Your task to perform on an android device: toggle improve location accuracy Image 0: 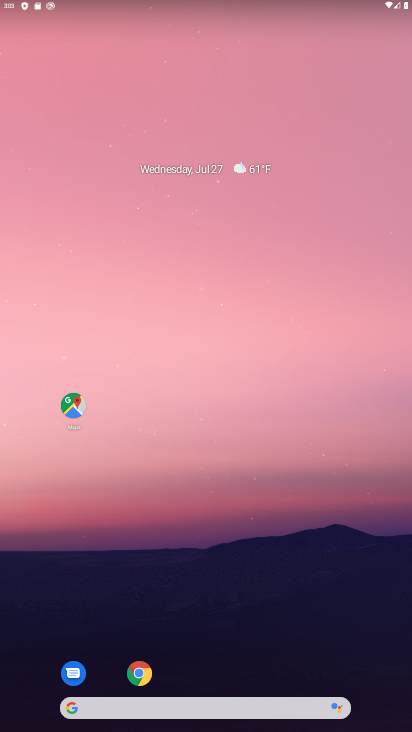
Step 0: drag from (318, 651) to (256, 208)
Your task to perform on an android device: toggle improve location accuracy Image 1: 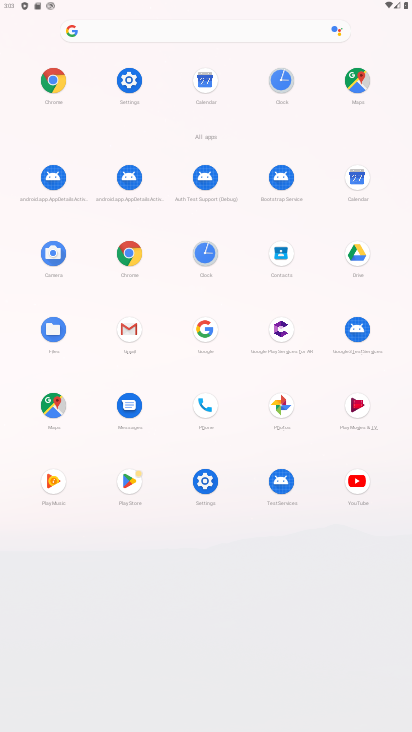
Step 1: click (211, 485)
Your task to perform on an android device: toggle improve location accuracy Image 2: 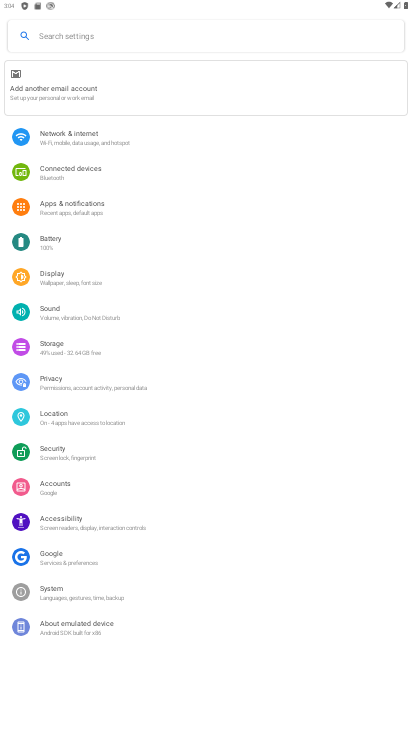
Step 2: click (62, 422)
Your task to perform on an android device: toggle improve location accuracy Image 3: 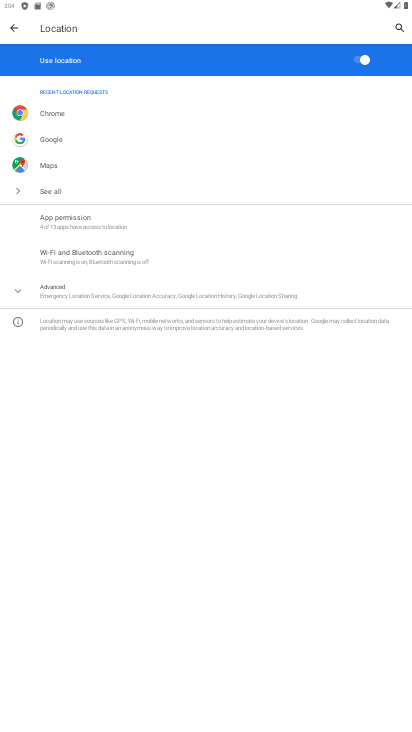
Step 3: click (76, 291)
Your task to perform on an android device: toggle improve location accuracy Image 4: 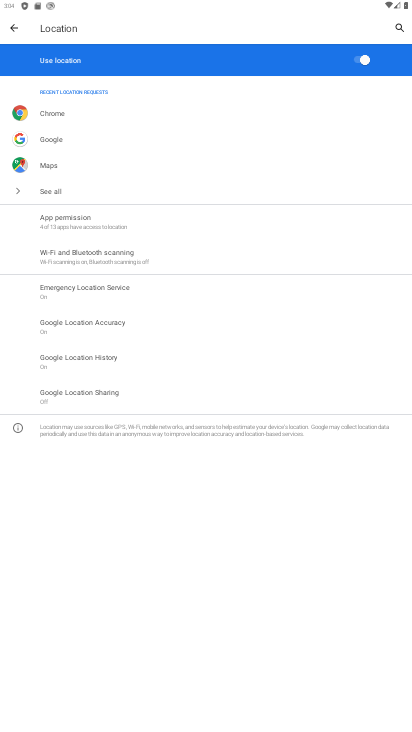
Step 4: click (130, 326)
Your task to perform on an android device: toggle improve location accuracy Image 5: 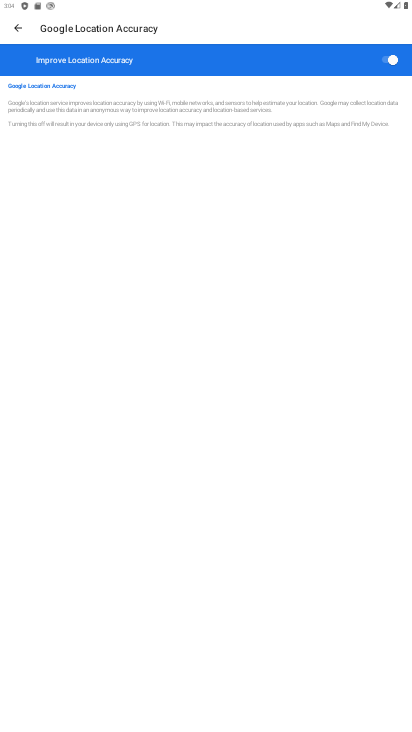
Step 5: click (394, 63)
Your task to perform on an android device: toggle improve location accuracy Image 6: 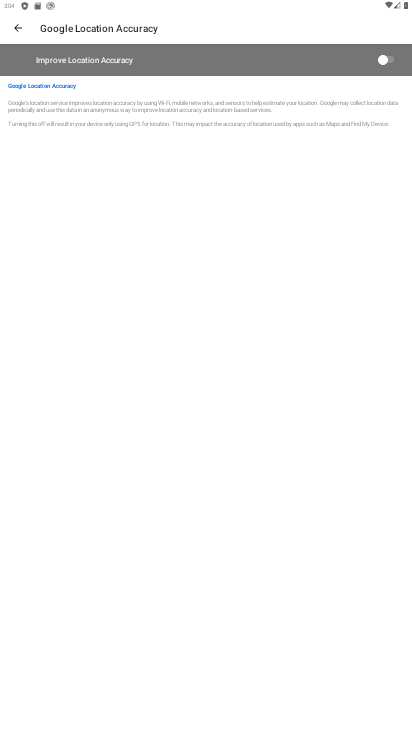
Step 6: task complete